Your task to perform on an android device: Open accessibility settings Image 0: 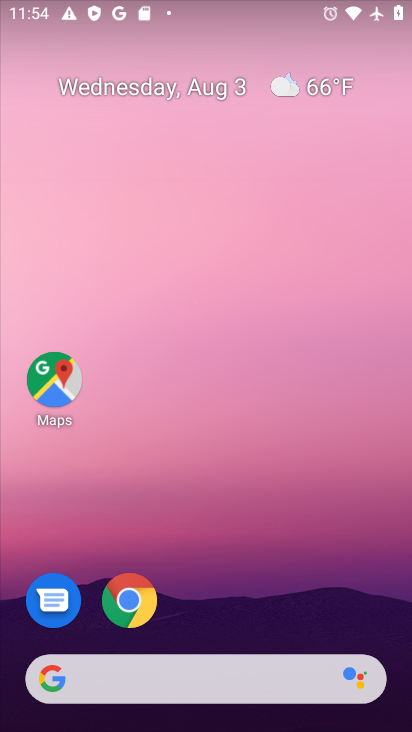
Step 0: drag from (244, 638) to (140, 42)
Your task to perform on an android device: Open accessibility settings Image 1: 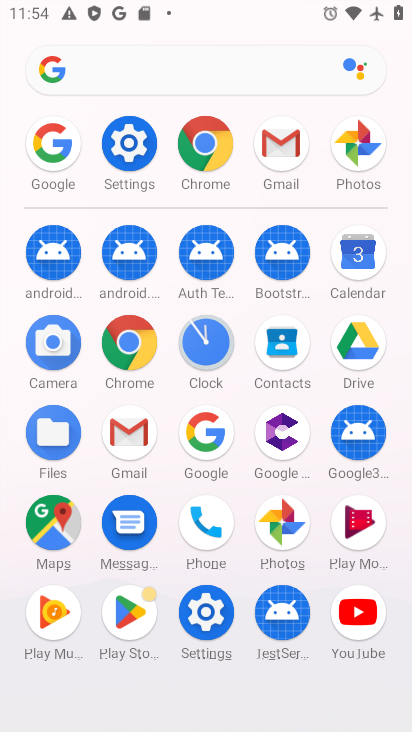
Step 1: click (118, 127)
Your task to perform on an android device: Open accessibility settings Image 2: 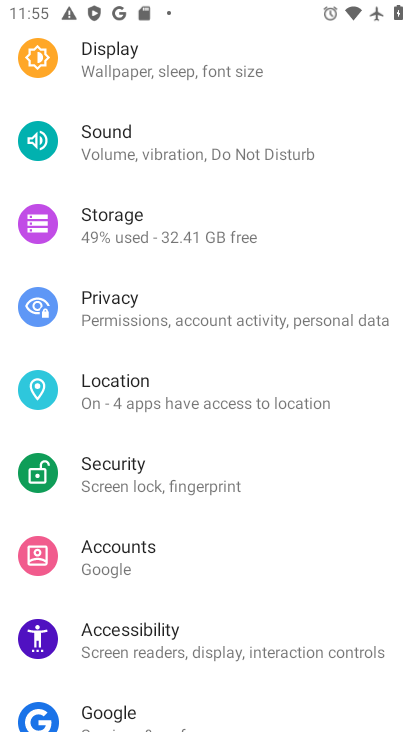
Step 2: click (156, 612)
Your task to perform on an android device: Open accessibility settings Image 3: 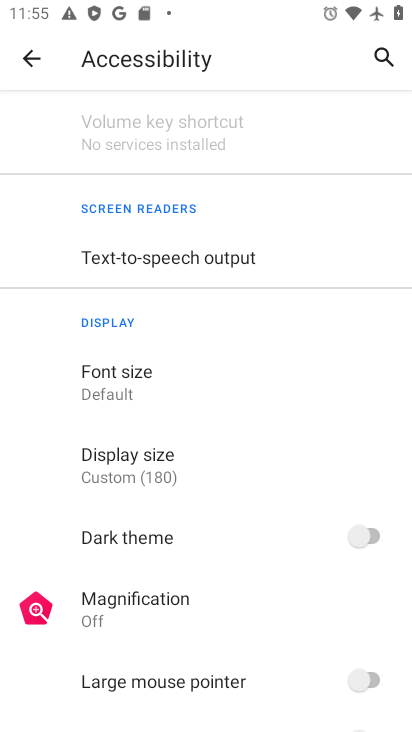
Step 3: task complete